Your task to perform on an android device: turn on showing notifications on the lock screen Image 0: 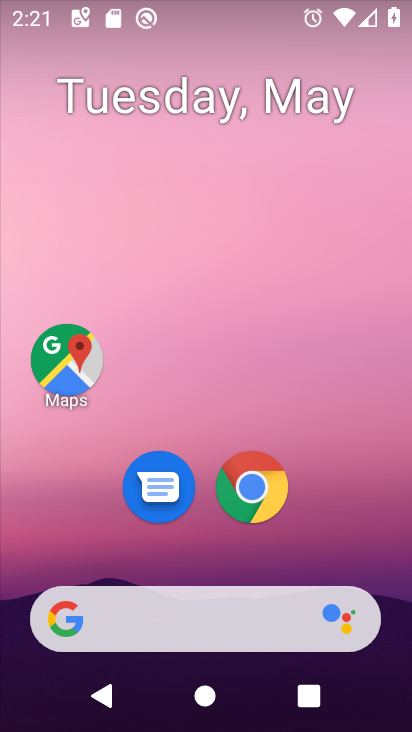
Step 0: drag from (407, 361) to (238, 186)
Your task to perform on an android device: turn on showing notifications on the lock screen Image 1: 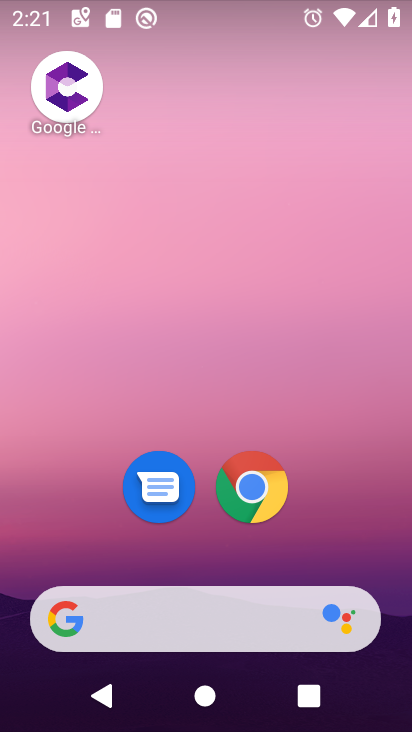
Step 1: drag from (24, 597) to (244, 99)
Your task to perform on an android device: turn on showing notifications on the lock screen Image 2: 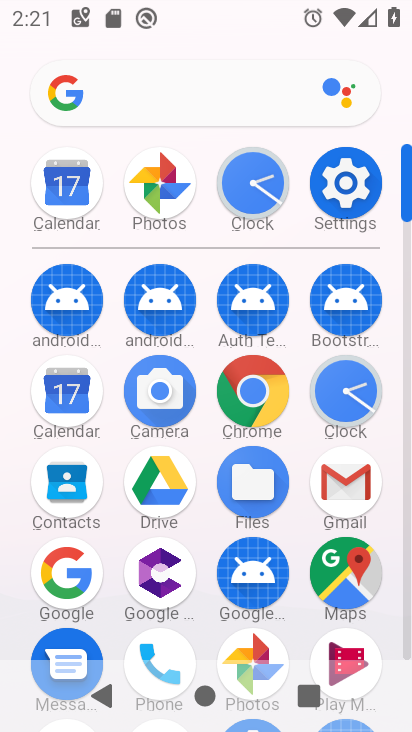
Step 2: click (333, 179)
Your task to perform on an android device: turn on showing notifications on the lock screen Image 3: 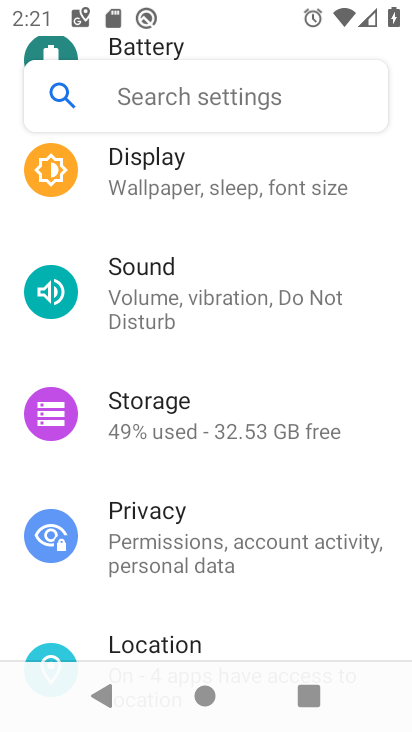
Step 3: drag from (132, 182) to (92, 588)
Your task to perform on an android device: turn on showing notifications on the lock screen Image 4: 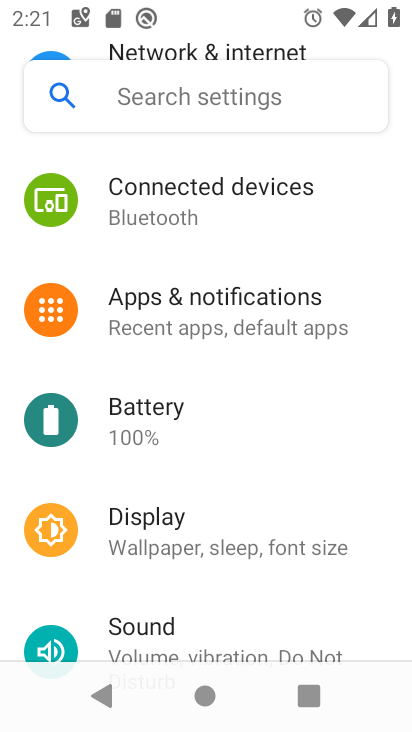
Step 4: drag from (250, 194) to (185, 561)
Your task to perform on an android device: turn on showing notifications on the lock screen Image 5: 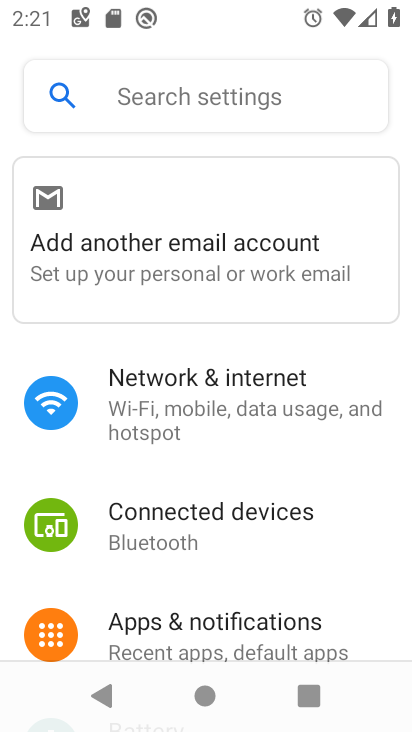
Step 5: click (148, 629)
Your task to perform on an android device: turn on showing notifications on the lock screen Image 6: 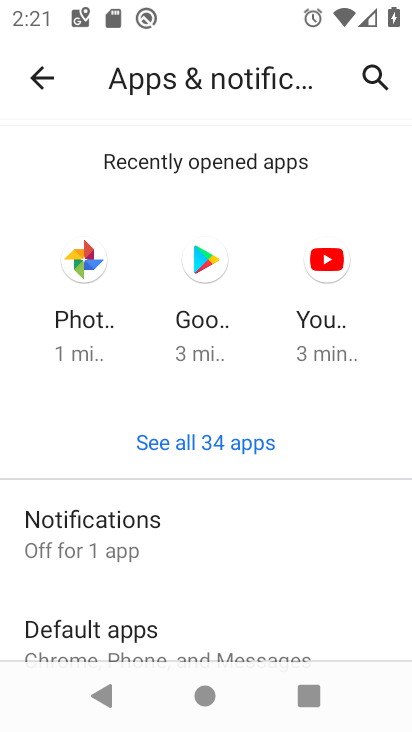
Step 6: click (126, 543)
Your task to perform on an android device: turn on showing notifications on the lock screen Image 7: 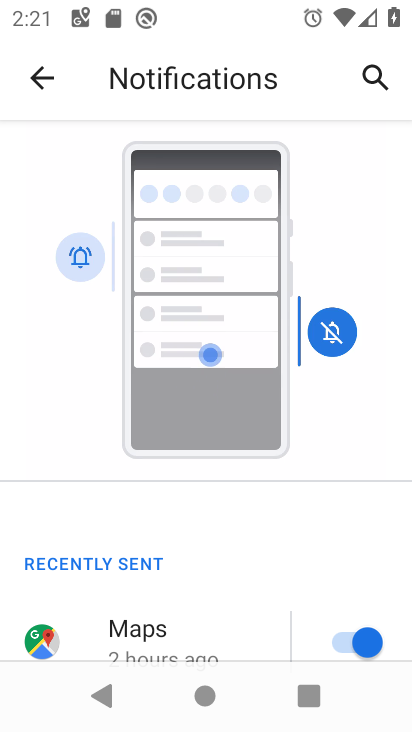
Step 7: drag from (25, 364) to (219, 77)
Your task to perform on an android device: turn on showing notifications on the lock screen Image 8: 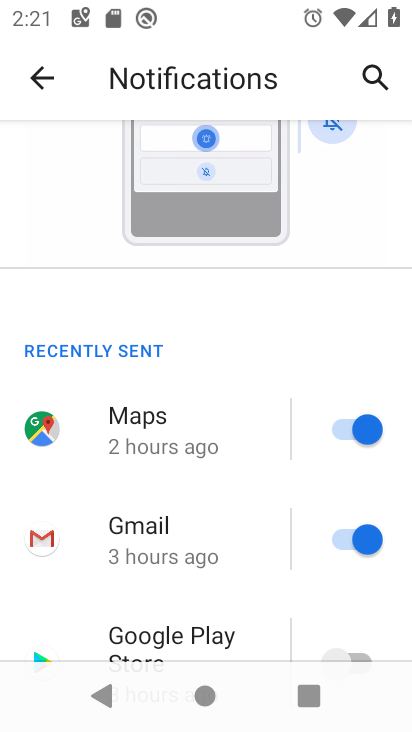
Step 8: drag from (10, 632) to (247, 296)
Your task to perform on an android device: turn on showing notifications on the lock screen Image 9: 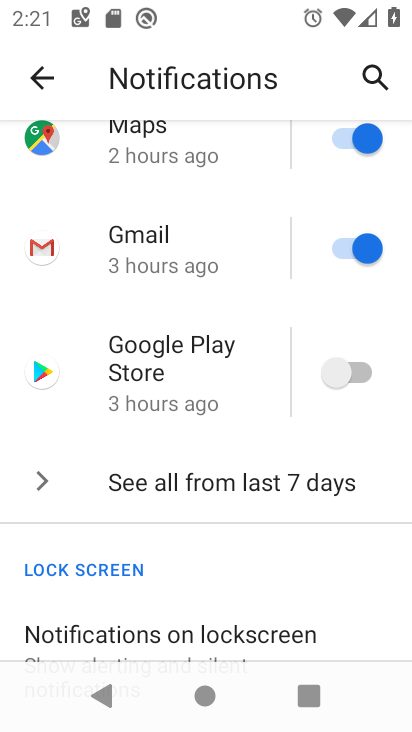
Step 9: click (69, 648)
Your task to perform on an android device: turn on showing notifications on the lock screen Image 10: 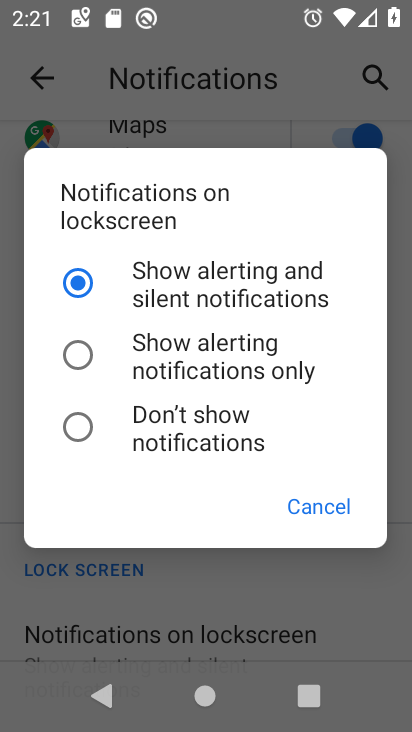
Step 10: task complete